Your task to perform on an android device: Open Google Chrome and click the shortcut for Amazon.com Image 0: 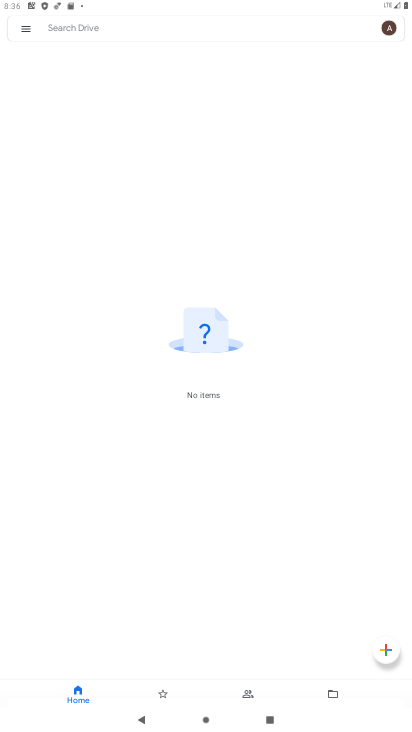
Step 0: press home button
Your task to perform on an android device: Open Google Chrome and click the shortcut for Amazon.com Image 1: 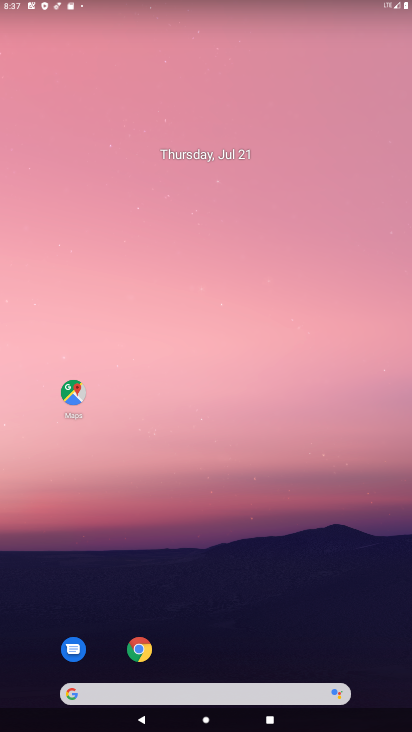
Step 1: click (141, 641)
Your task to perform on an android device: Open Google Chrome and click the shortcut for Amazon.com Image 2: 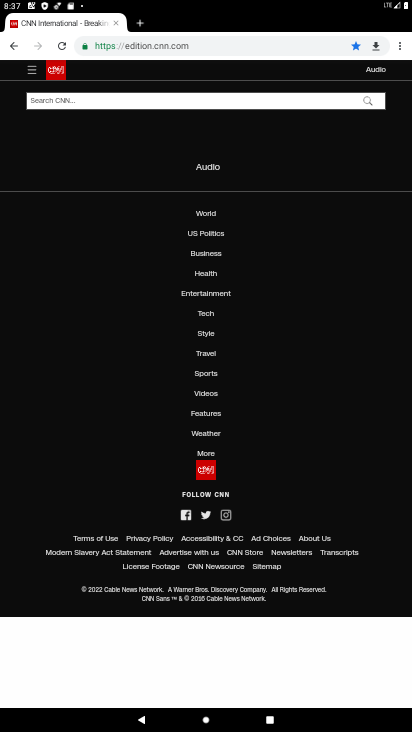
Step 2: click (136, 25)
Your task to perform on an android device: Open Google Chrome and click the shortcut for Amazon.com Image 3: 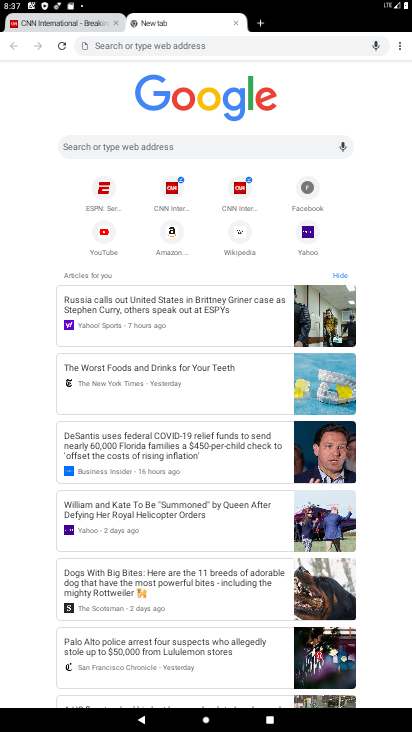
Step 3: click (175, 244)
Your task to perform on an android device: Open Google Chrome and click the shortcut for Amazon.com Image 4: 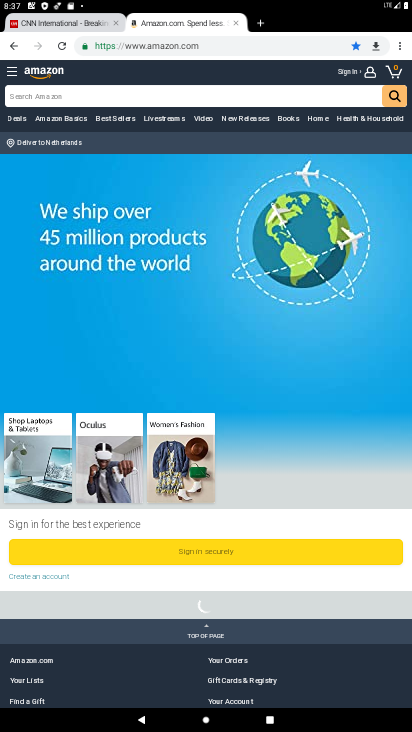
Step 4: task complete